Your task to perform on an android device: add a contact Image 0: 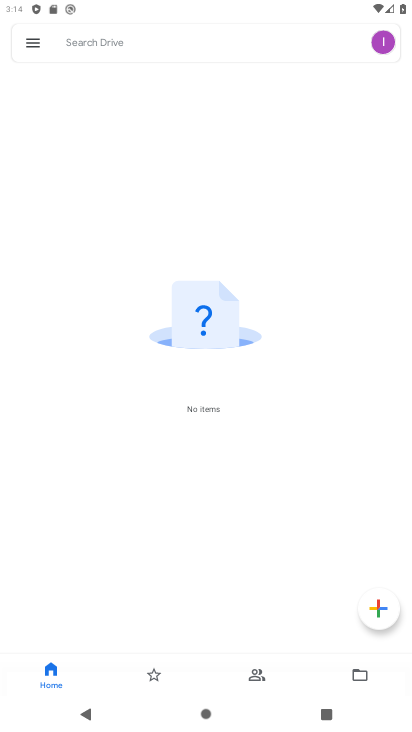
Step 0: press home button
Your task to perform on an android device: add a contact Image 1: 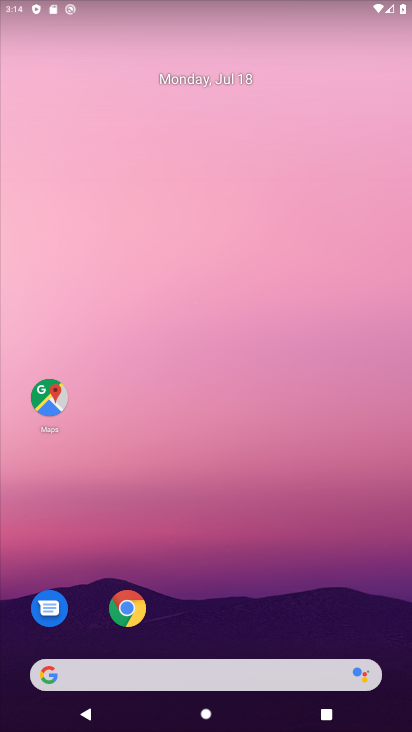
Step 1: drag from (314, 575) to (352, 15)
Your task to perform on an android device: add a contact Image 2: 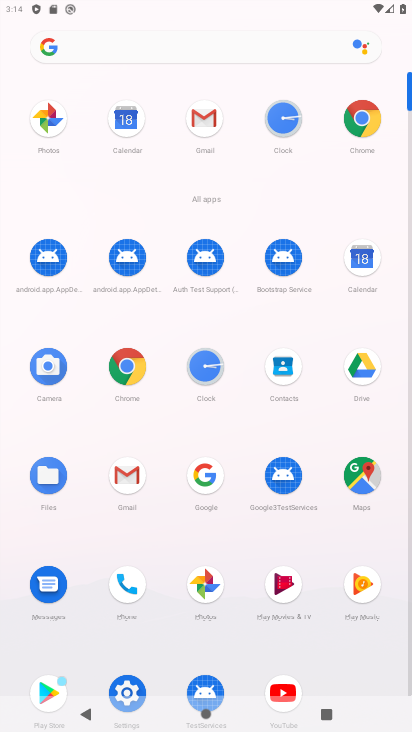
Step 2: click (286, 371)
Your task to perform on an android device: add a contact Image 3: 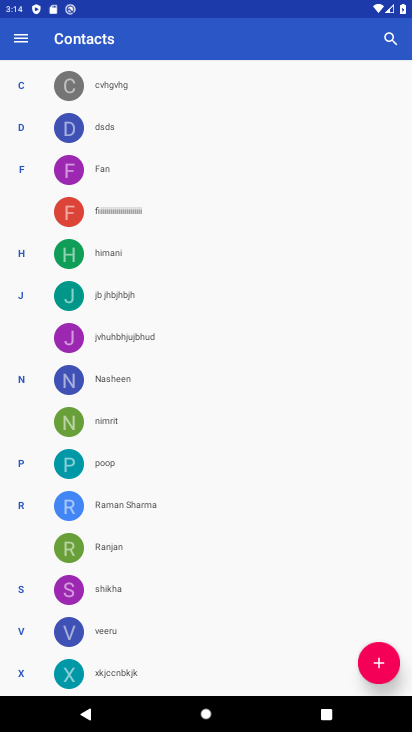
Step 3: click (383, 661)
Your task to perform on an android device: add a contact Image 4: 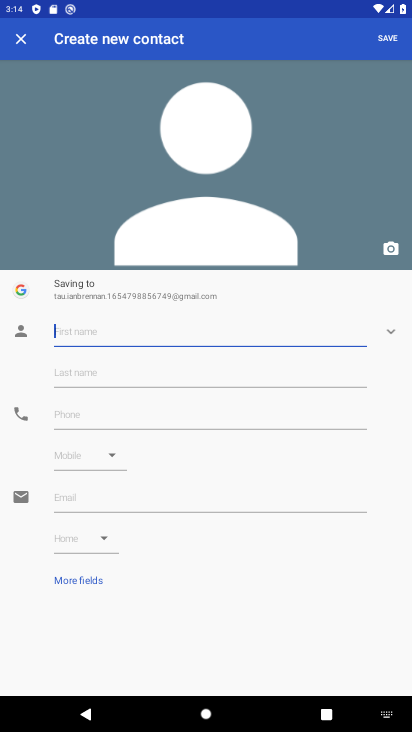
Step 4: type "sansar"
Your task to perform on an android device: add a contact Image 5: 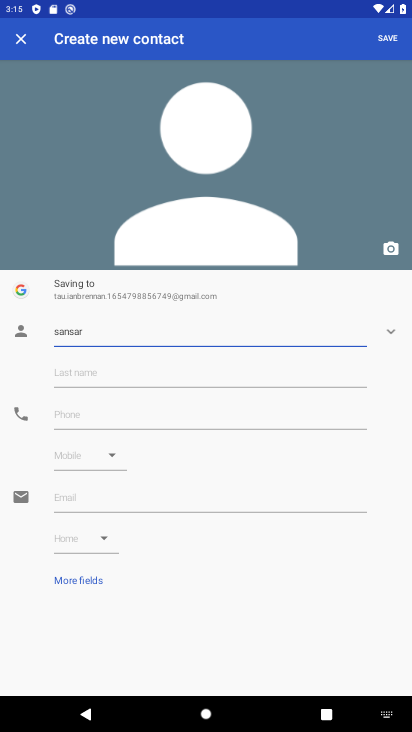
Step 5: click (393, 37)
Your task to perform on an android device: add a contact Image 6: 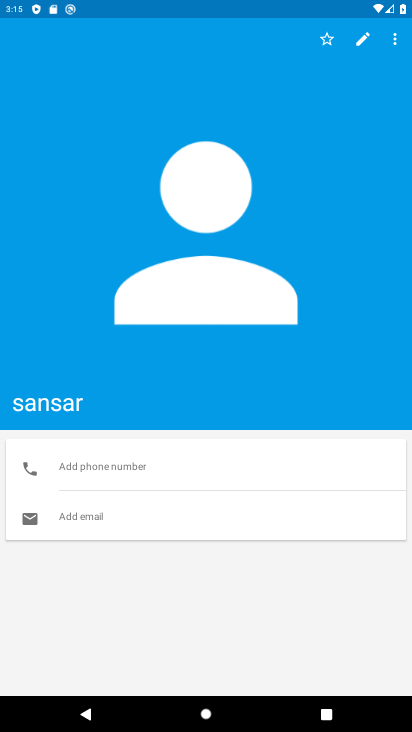
Step 6: task complete